Your task to perform on an android device: check data usage Image 0: 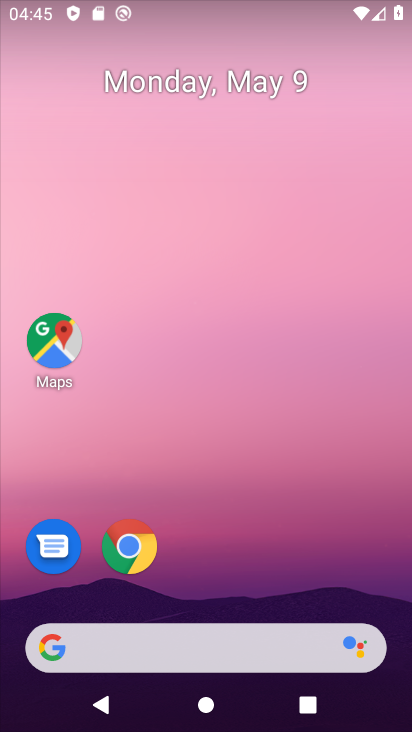
Step 0: drag from (225, 597) to (277, 69)
Your task to perform on an android device: check data usage Image 1: 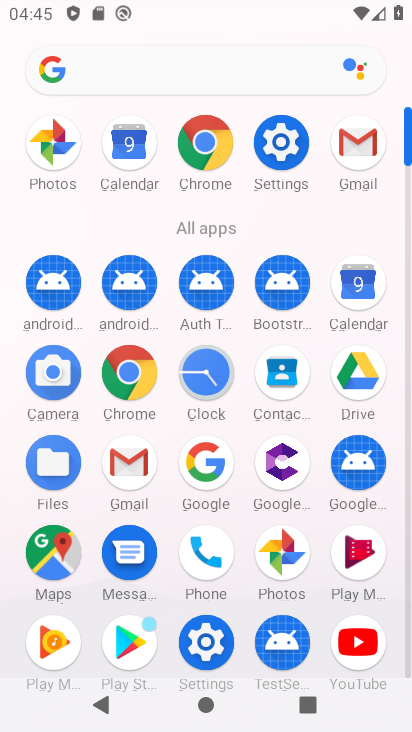
Step 1: click (296, 160)
Your task to perform on an android device: check data usage Image 2: 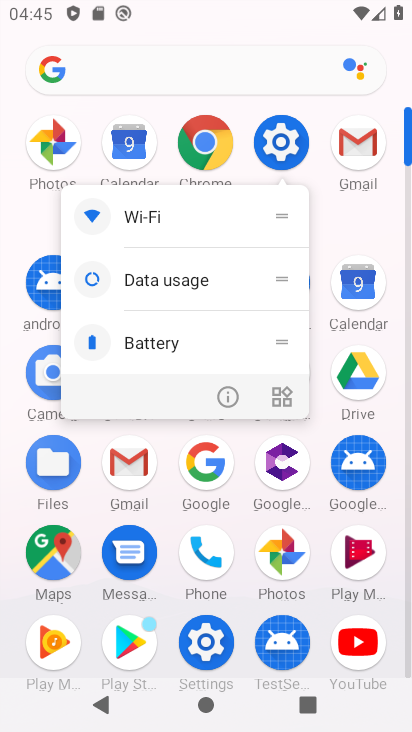
Step 2: click (292, 150)
Your task to perform on an android device: check data usage Image 3: 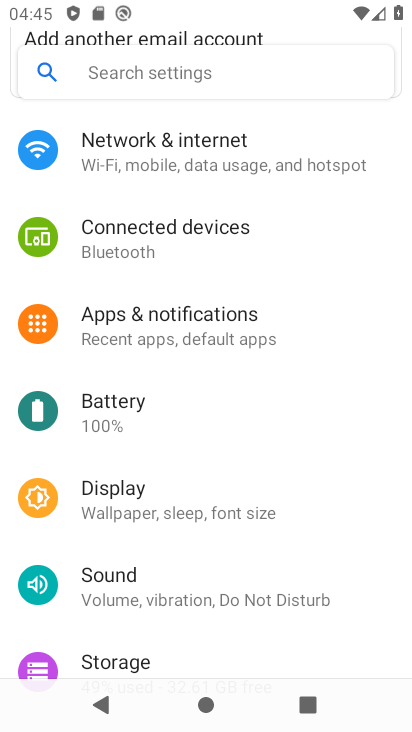
Step 3: drag from (168, 523) to (210, 305)
Your task to perform on an android device: check data usage Image 4: 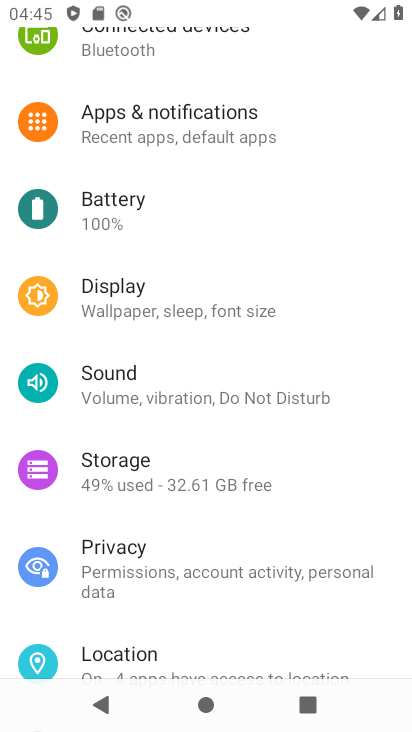
Step 4: drag from (205, 278) to (200, 644)
Your task to perform on an android device: check data usage Image 5: 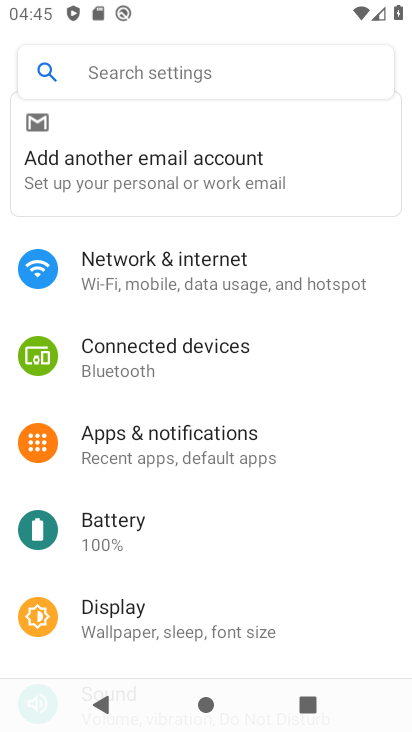
Step 5: click (175, 272)
Your task to perform on an android device: check data usage Image 6: 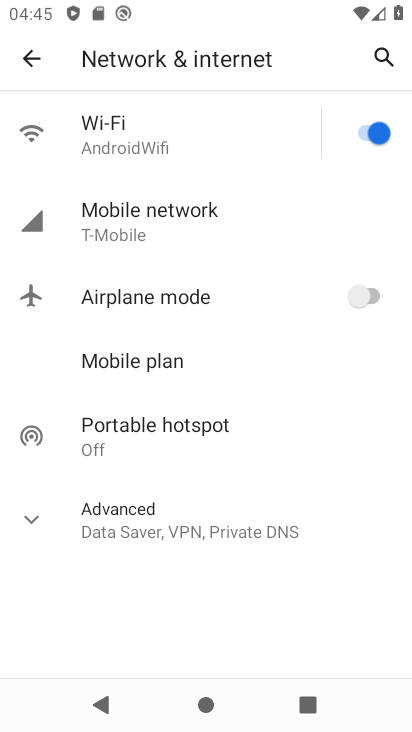
Step 6: click (179, 226)
Your task to perform on an android device: check data usage Image 7: 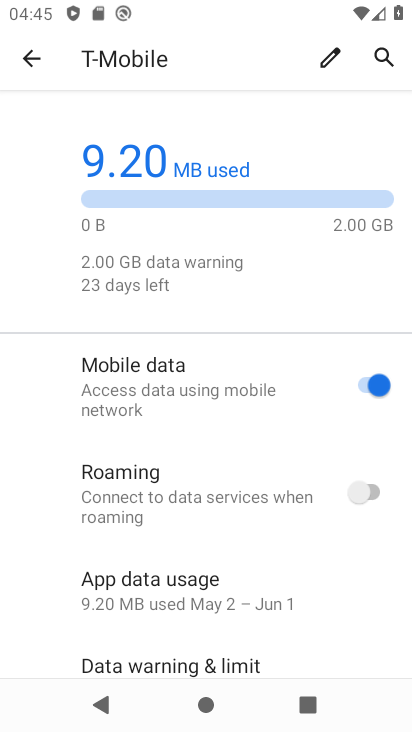
Step 7: click (195, 606)
Your task to perform on an android device: check data usage Image 8: 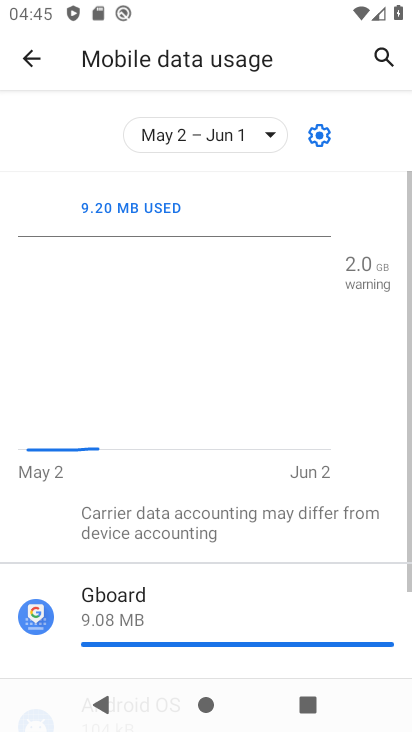
Step 8: task complete